Your task to perform on an android device: Go to network settings Image 0: 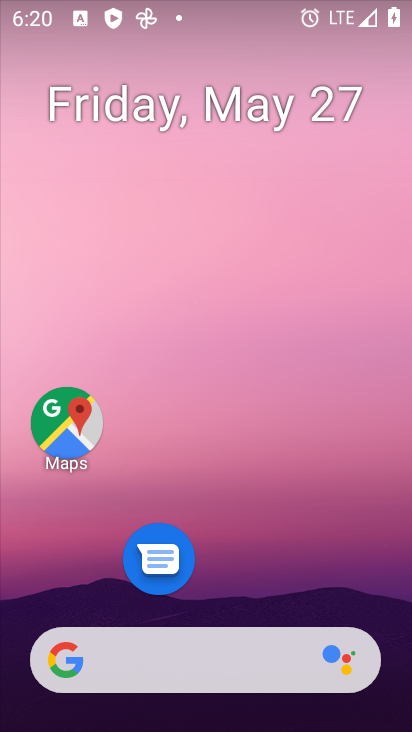
Step 0: drag from (233, 583) to (354, 1)
Your task to perform on an android device: Go to network settings Image 1: 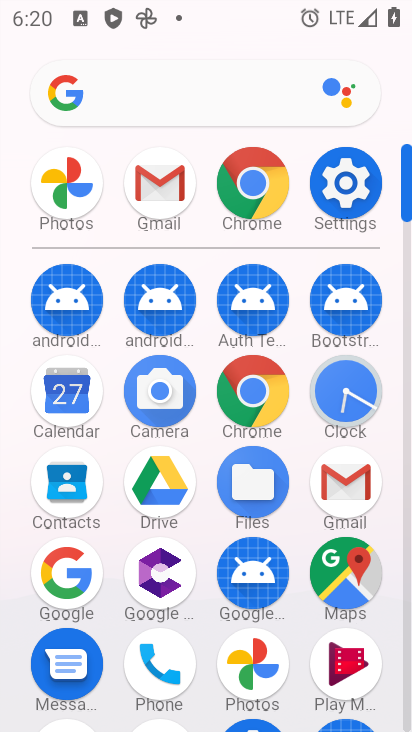
Step 1: click (374, 180)
Your task to perform on an android device: Go to network settings Image 2: 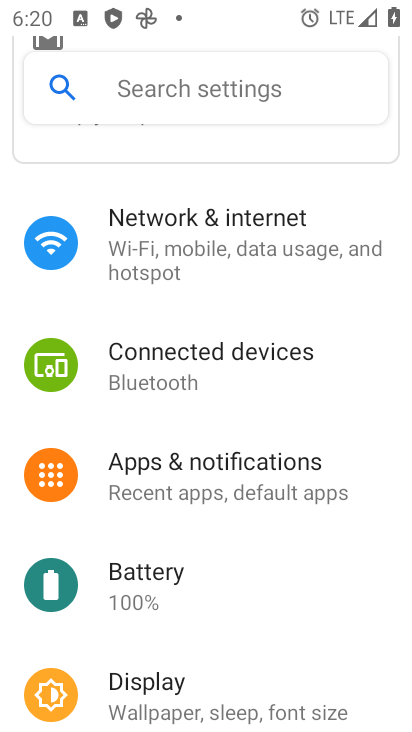
Step 2: click (153, 279)
Your task to perform on an android device: Go to network settings Image 3: 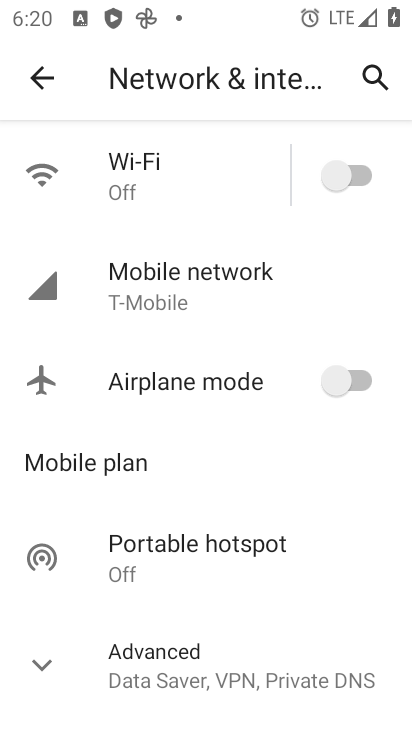
Step 3: task complete